Your task to perform on an android device: check google app version Image 0: 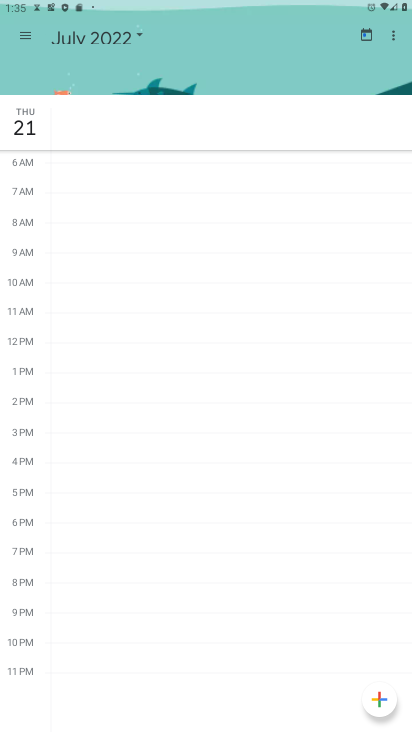
Step 0: press home button
Your task to perform on an android device: check google app version Image 1: 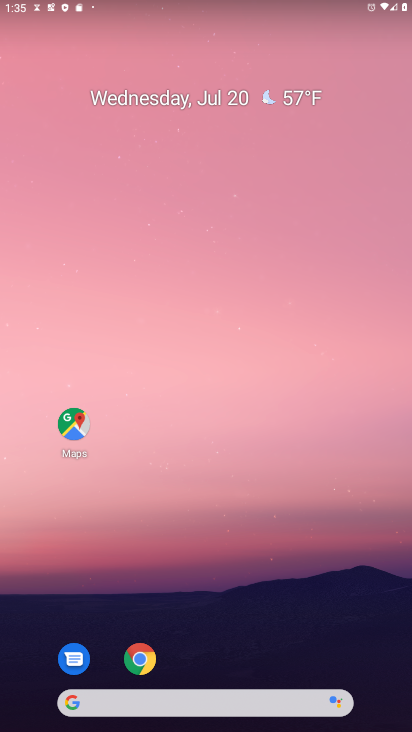
Step 1: drag from (212, 666) to (253, 2)
Your task to perform on an android device: check google app version Image 2: 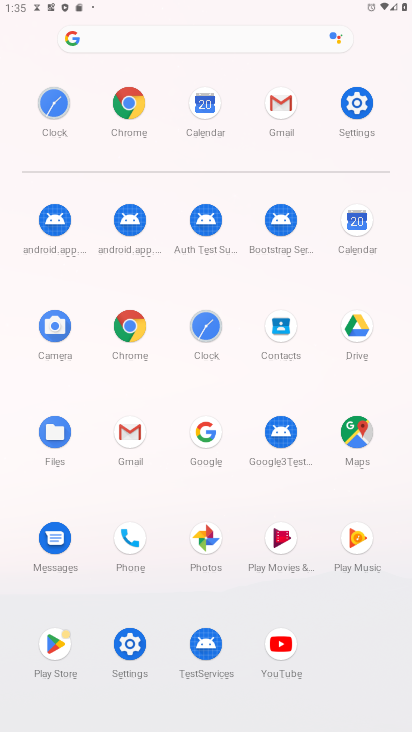
Step 2: click (204, 430)
Your task to perform on an android device: check google app version Image 3: 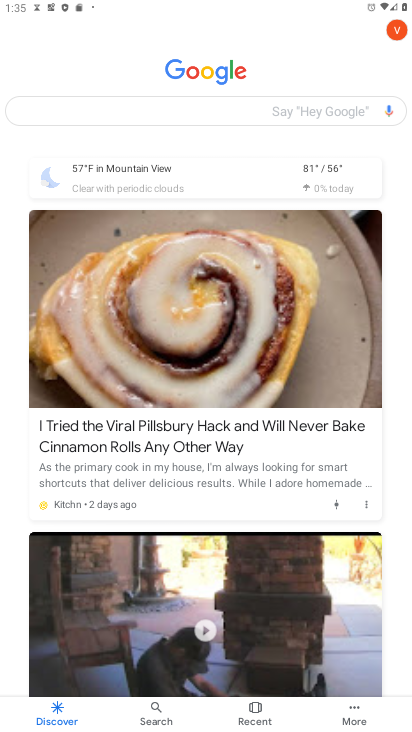
Step 3: click (353, 709)
Your task to perform on an android device: check google app version Image 4: 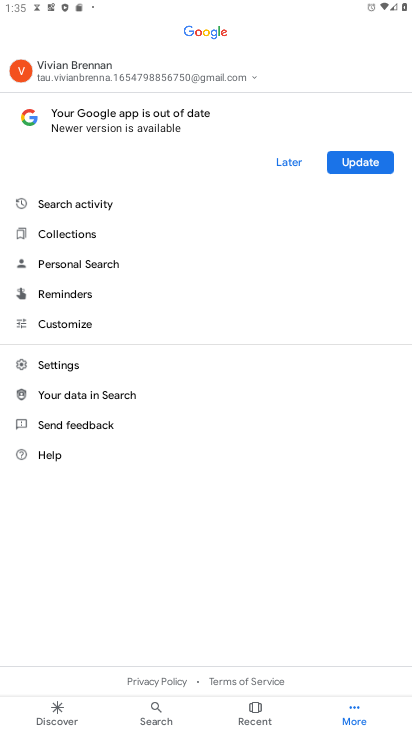
Step 4: click (83, 360)
Your task to perform on an android device: check google app version Image 5: 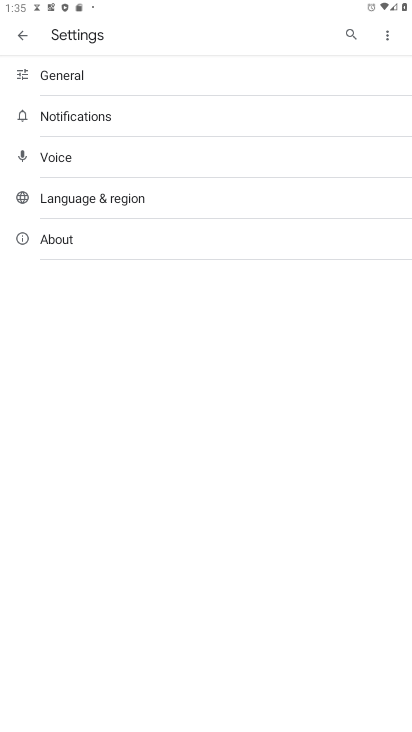
Step 5: click (89, 240)
Your task to perform on an android device: check google app version Image 6: 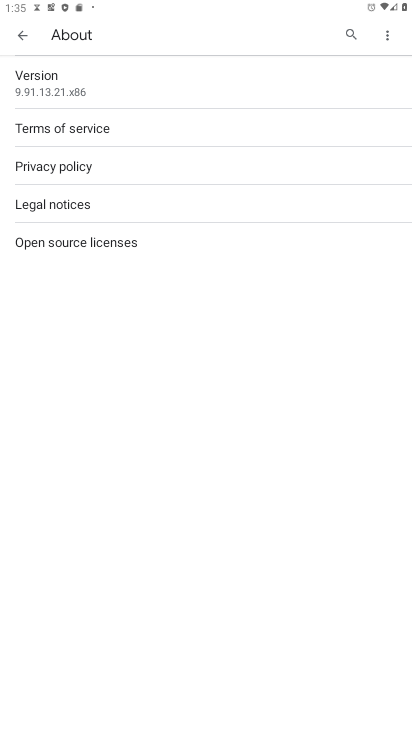
Step 6: task complete